Your task to perform on an android device: visit the assistant section in the google photos Image 0: 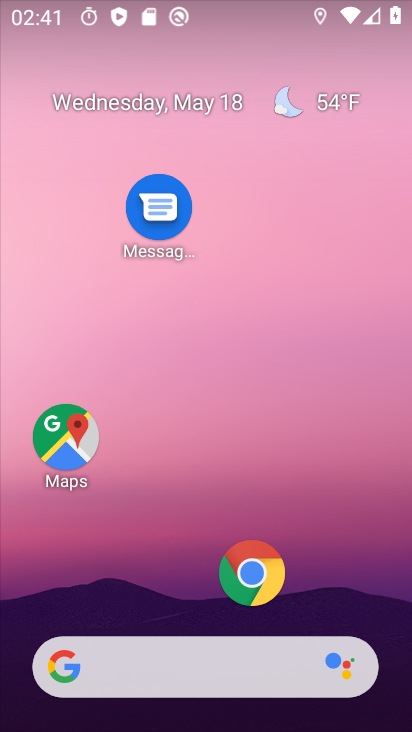
Step 0: drag from (175, 605) to (199, 271)
Your task to perform on an android device: visit the assistant section in the google photos Image 1: 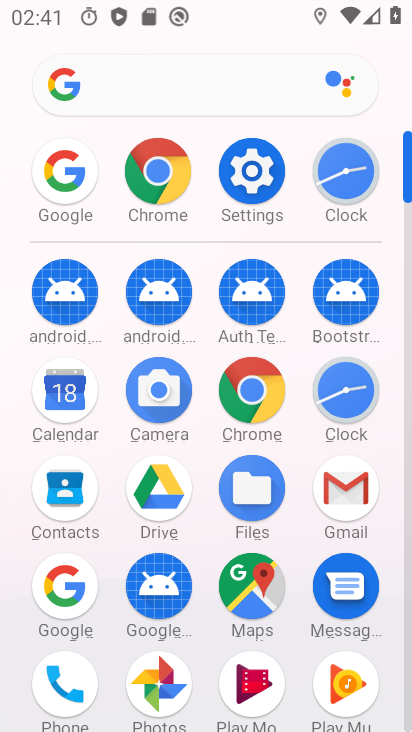
Step 1: click (152, 669)
Your task to perform on an android device: visit the assistant section in the google photos Image 2: 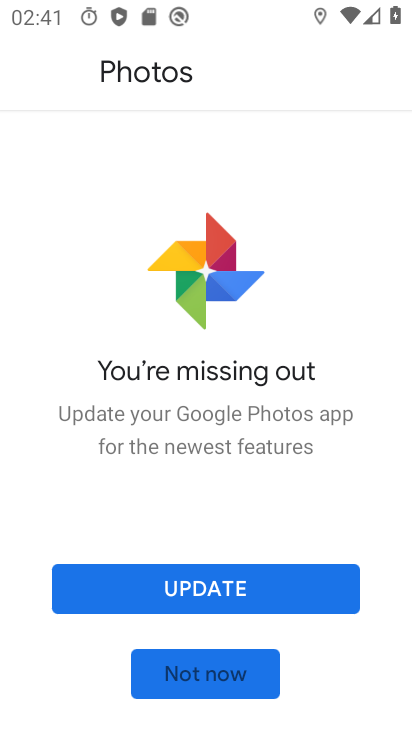
Step 2: click (216, 673)
Your task to perform on an android device: visit the assistant section in the google photos Image 3: 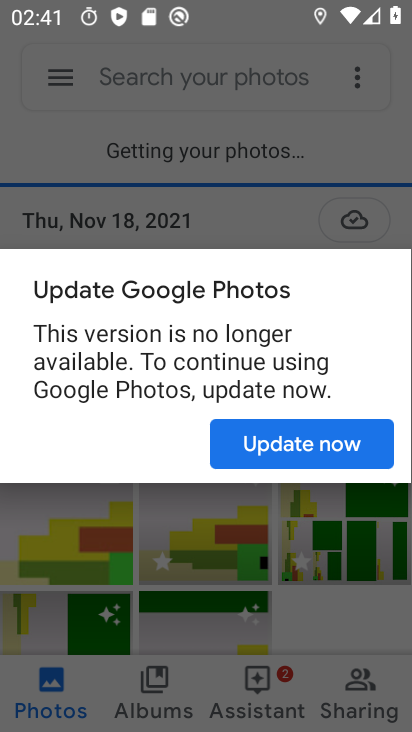
Step 3: click (274, 444)
Your task to perform on an android device: visit the assistant section in the google photos Image 4: 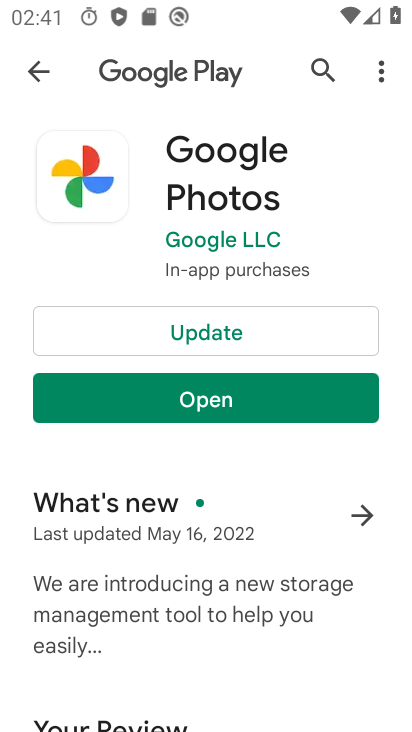
Step 4: click (207, 400)
Your task to perform on an android device: visit the assistant section in the google photos Image 5: 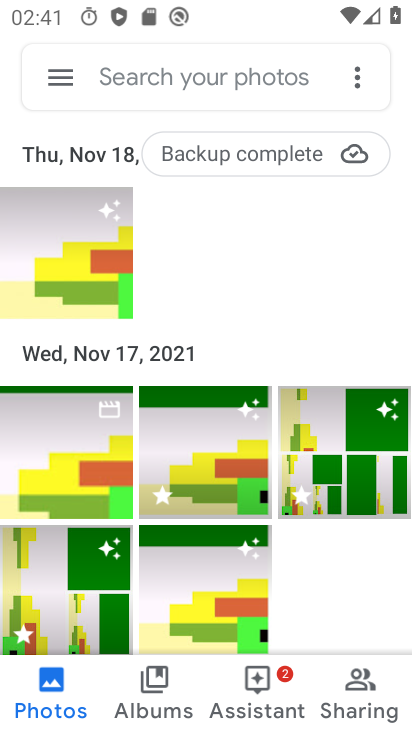
Step 5: click (258, 686)
Your task to perform on an android device: visit the assistant section in the google photos Image 6: 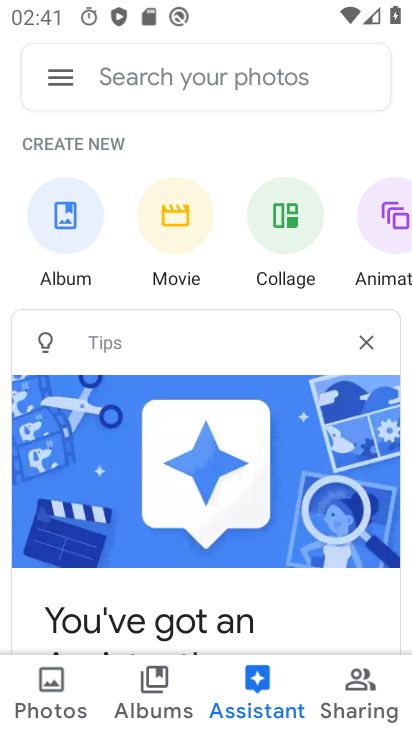
Step 6: task complete